Your task to perform on an android device: Open the calendar app, open the side menu, and click the "Day" option Image 0: 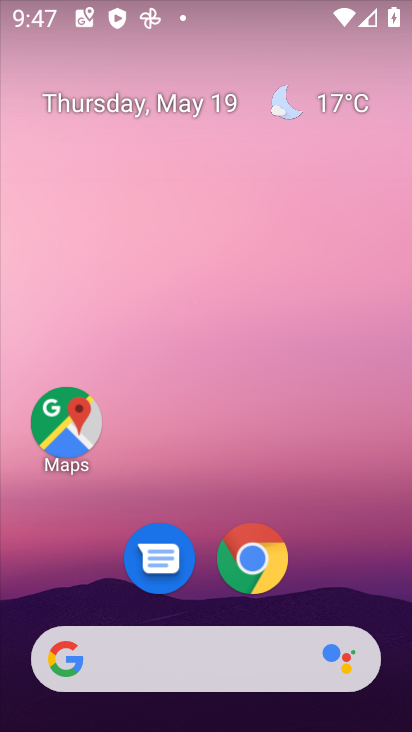
Step 0: drag from (223, 726) to (193, 70)
Your task to perform on an android device: Open the calendar app, open the side menu, and click the "Day" option Image 1: 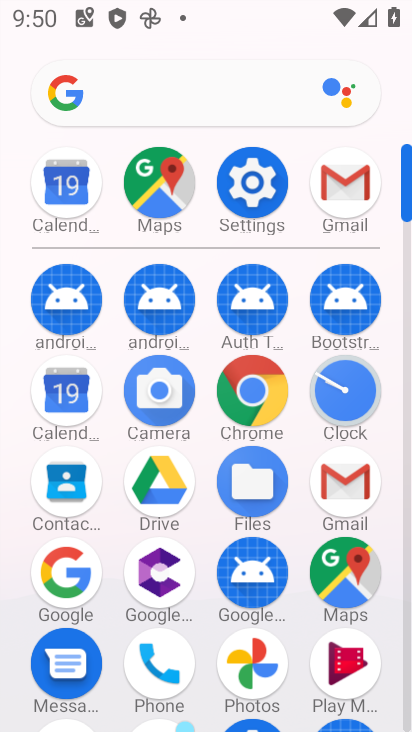
Step 1: click (72, 400)
Your task to perform on an android device: Open the calendar app, open the side menu, and click the "Day" option Image 2: 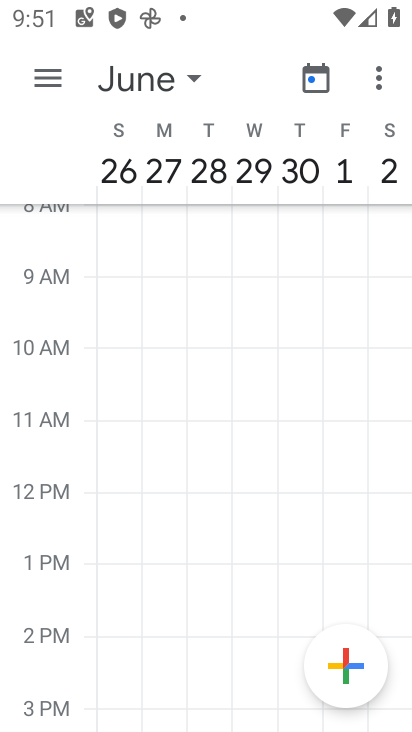
Step 2: click (49, 72)
Your task to perform on an android device: Open the calendar app, open the side menu, and click the "Day" option Image 3: 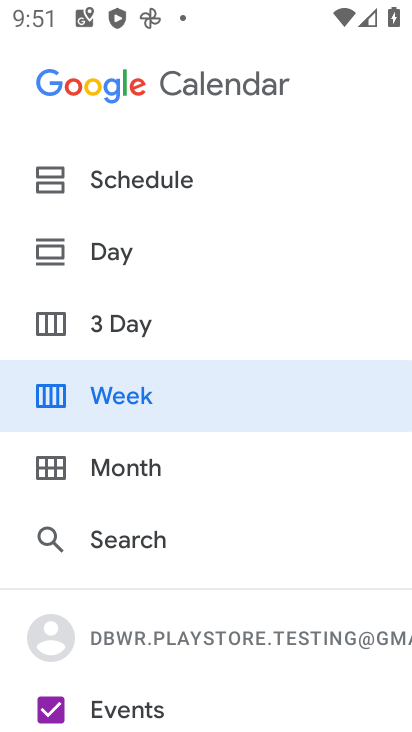
Step 3: click (110, 252)
Your task to perform on an android device: Open the calendar app, open the side menu, and click the "Day" option Image 4: 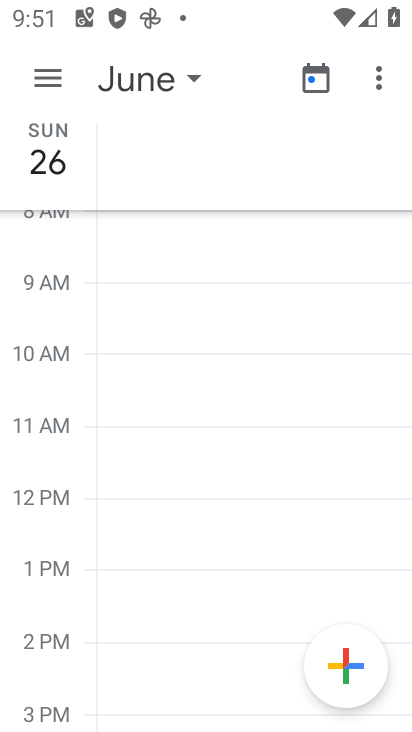
Step 4: task complete